Your task to perform on an android device: When is my next meeting? Image 0: 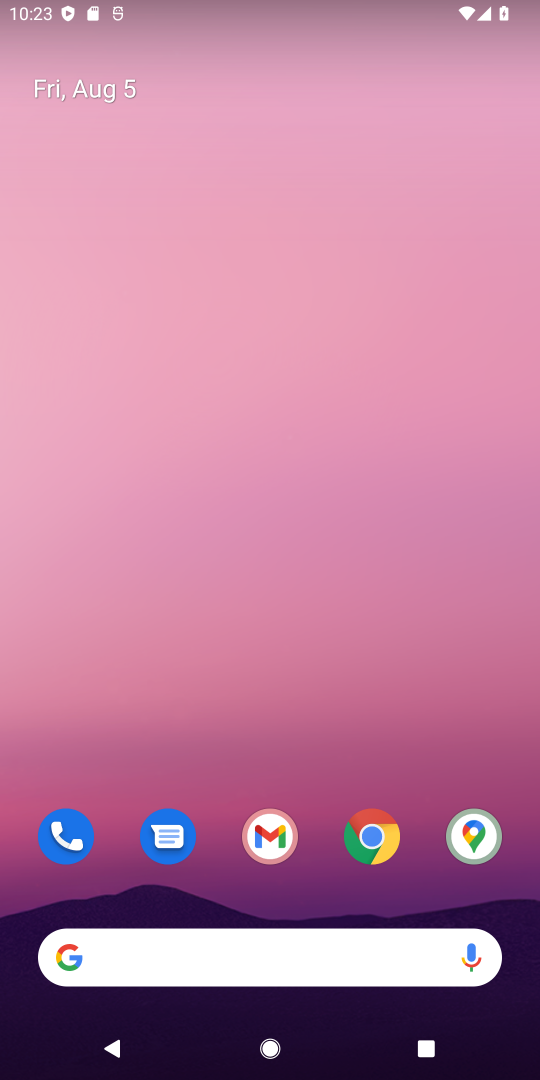
Step 0: drag from (306, 759) to (365, 209)
Your task to perform on an android device: When is my next meeting? Image 1: 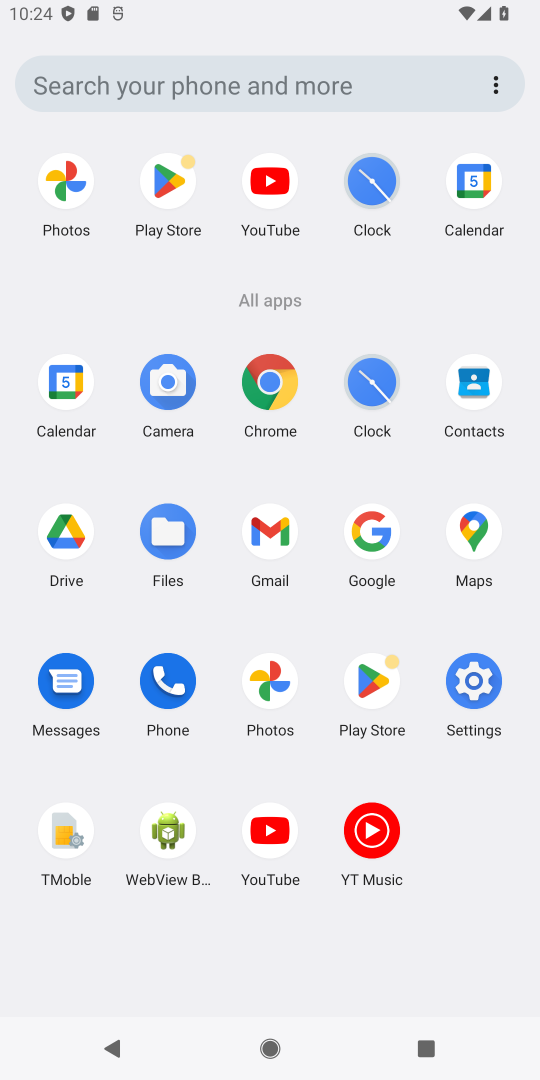
Step 1: click (66, 386)
Your task to perform on an android device: When is my next meeting? Image 2: 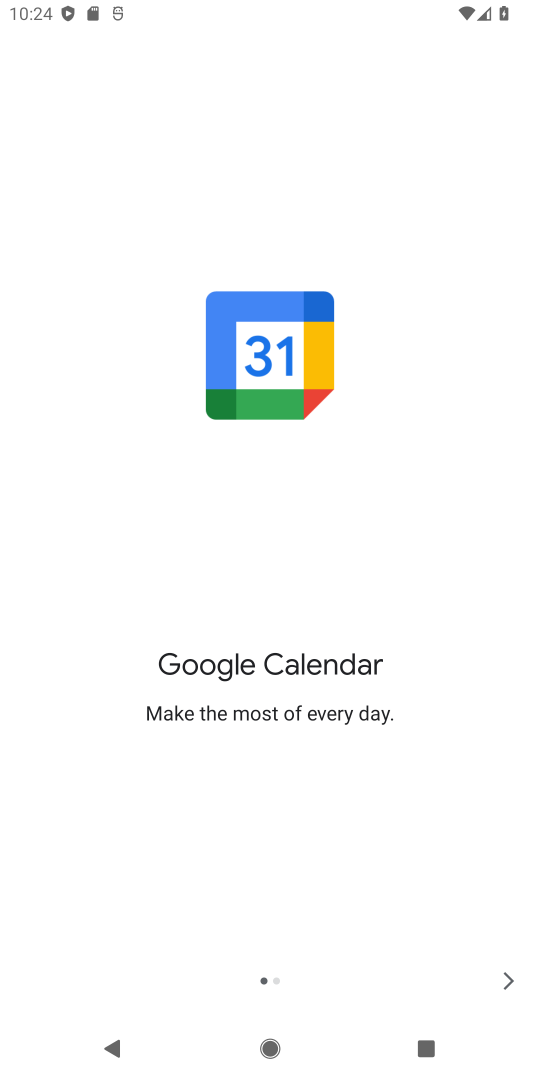
Step 2: click (516, 984)
Your task to perform on an android device: When is my next meeting? Image 3: 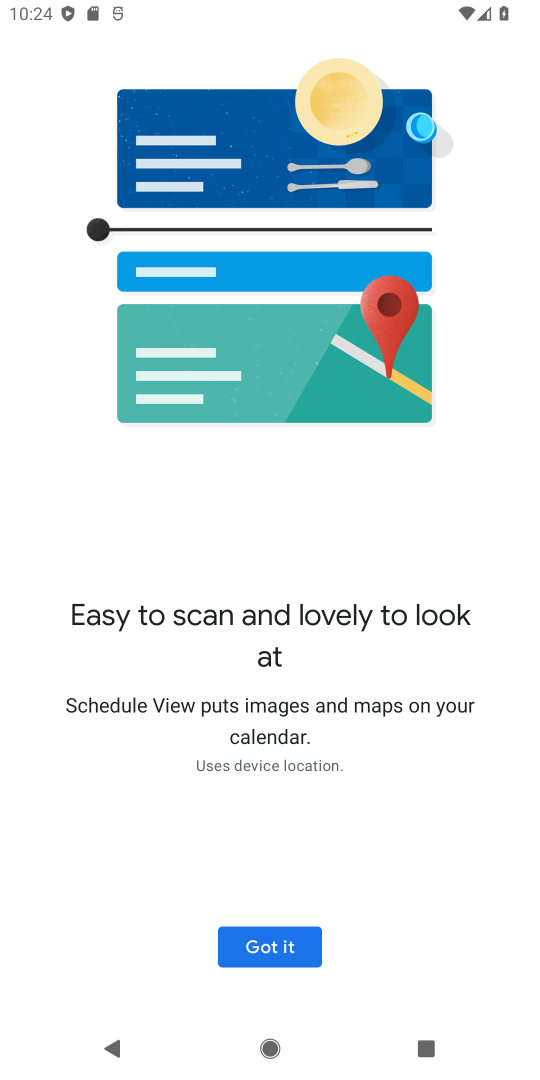
Step 3: click (286, 947)
Your task to perform on an android device: When is my next meeting? Image 4: 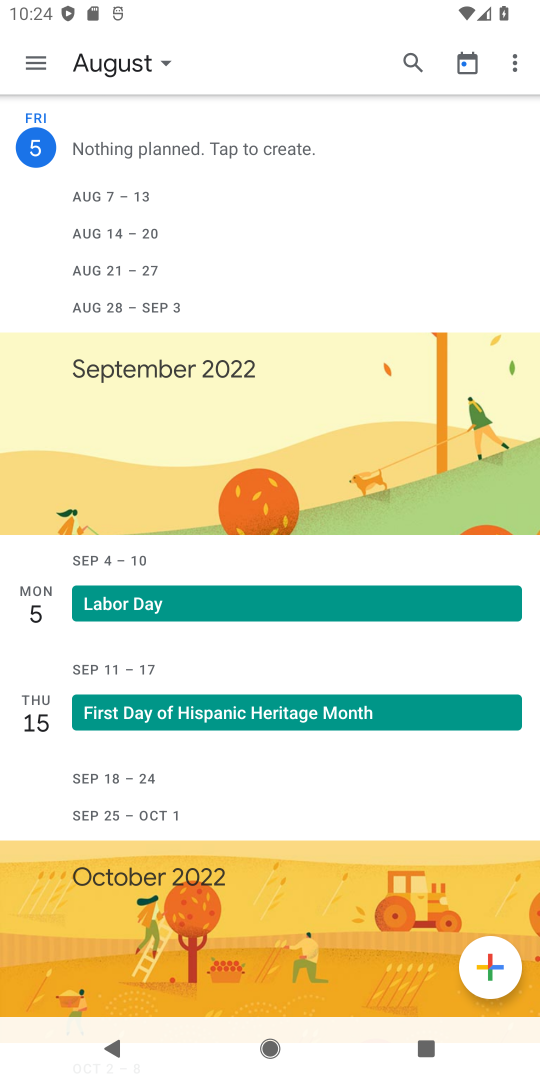
Step 4: task complete